Your task to perform on an android device: Go to eBay Image 0: 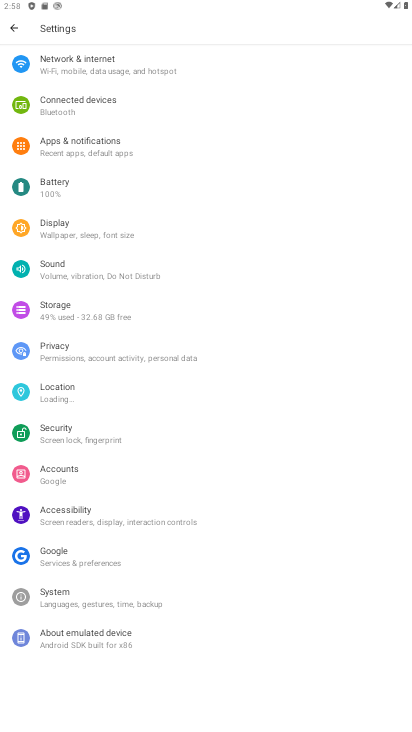
Step 0: press home button
Your task to perform on an android device: Go to eBay Image 1: 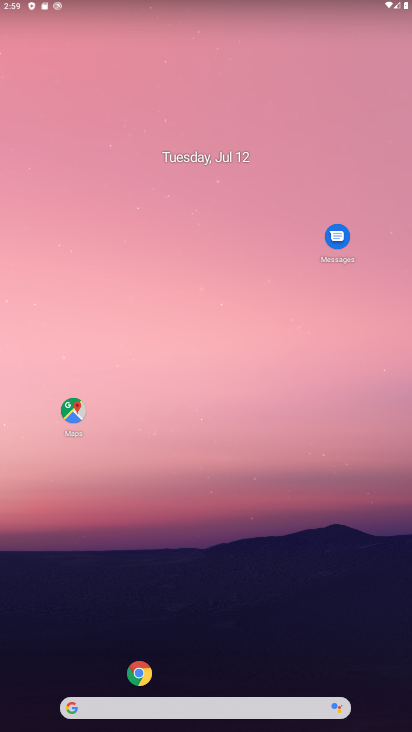
Step 1: click (149, 701)
Your task to perform on an android device: Go to eBay Image 2: 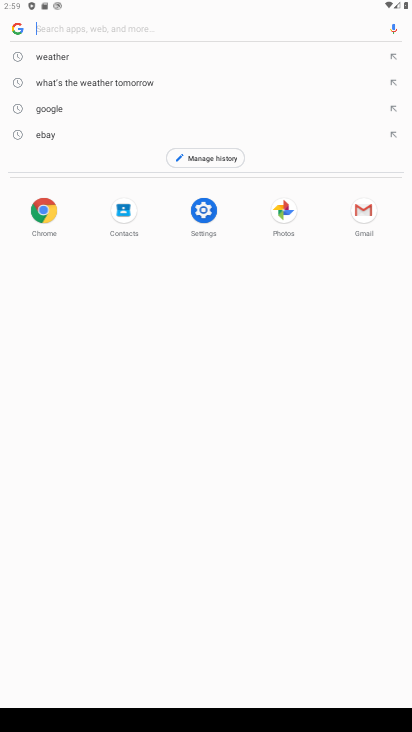
Step 2: click (61, 140)
Your task to perform on an android device: Go to eBay Image 3: 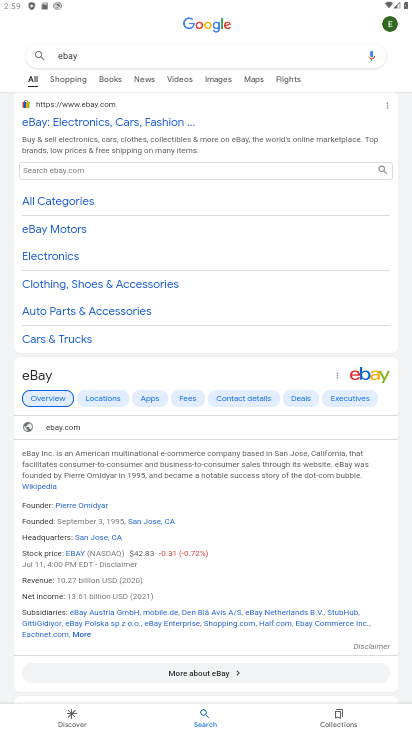
Step 3: task complete